Your task to perform on an android device: Search for vegetarian restaurants on Maps Image 0: 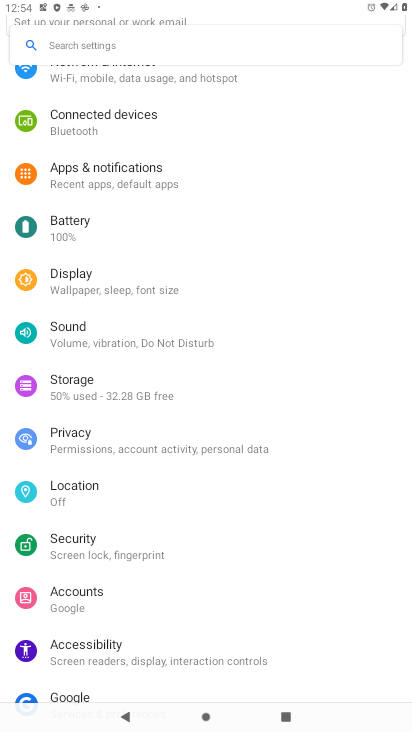
Step 0: press home button
Your task to perform on an android device: Search for vegetarian restaurants on Maps Image 1: 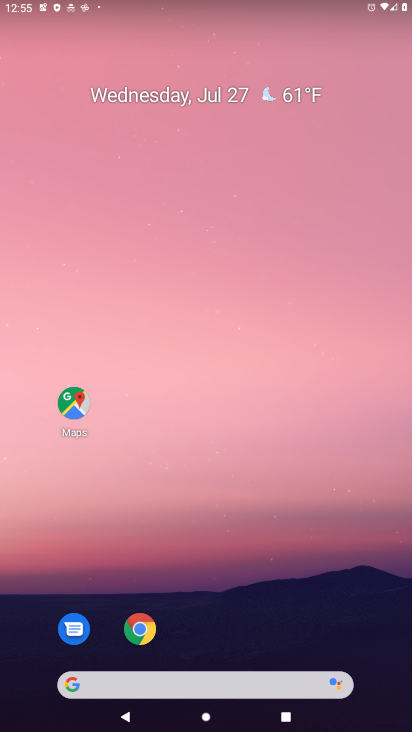
Step 1: click (89, 419)
Your task to perform on an android device: Search for vegetarian restaurants on Maps Image 2: 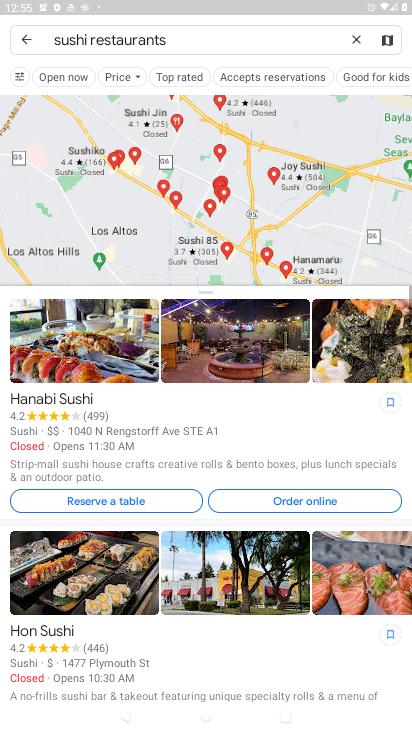
Step 2: click (352, 38)
Your task to perform on an android device: Search for vegetarian restaurants on Maps Image 3: 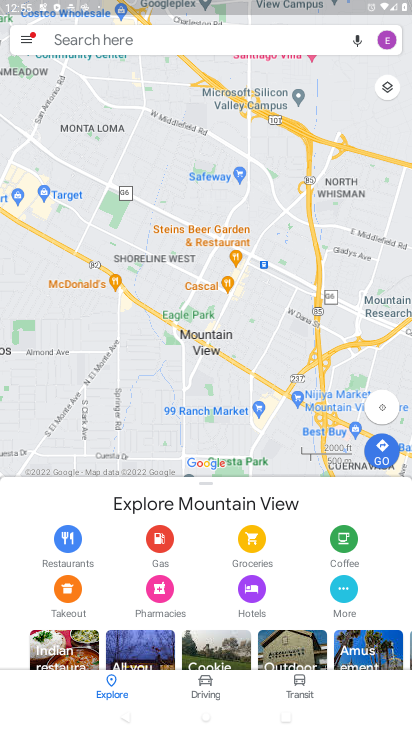
Step 3: click (186, 45)
Your task to perform on an android device: Search for vegetarian restaurants on Maps Image 4: 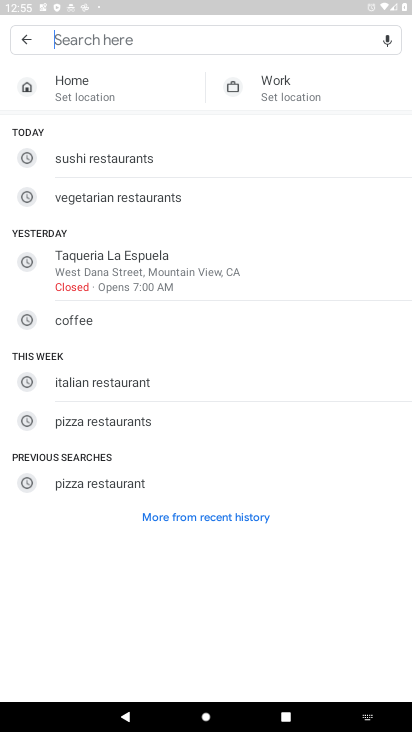
Step 4: click (127, 195)
Your task to perform on an android device: Search for vegetarian restaurants on Maps Image 5: 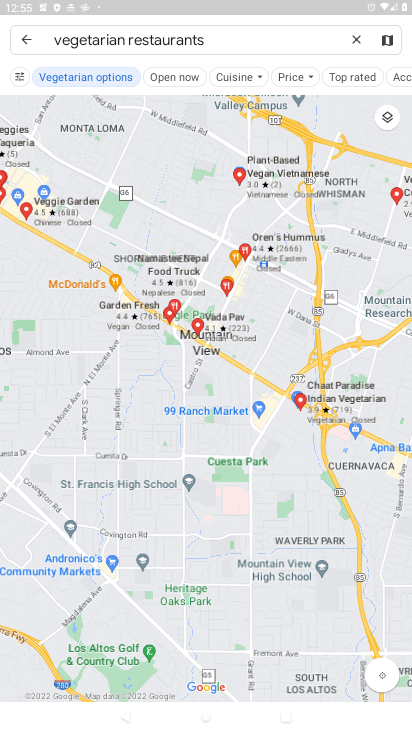
Step 5: task complete